Your task to perform on an android device: Open maps Image 0: 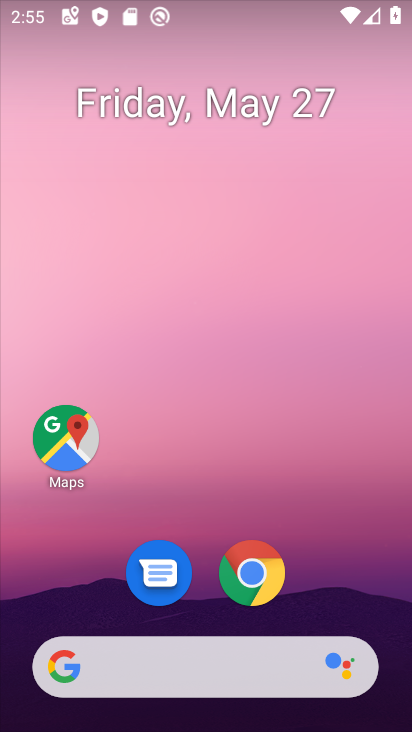
Step 0: click (65, 428)
Your task to perform on an android device: Open maps Image 1: 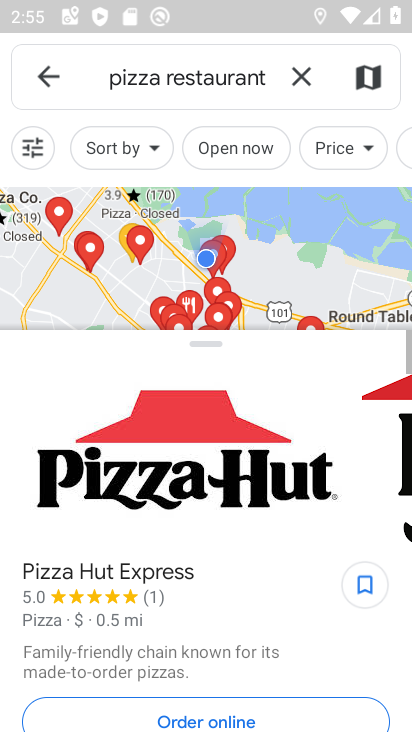
Step 1: click (296, 67)
Your task to perform on an android device: Open maps Image 2: 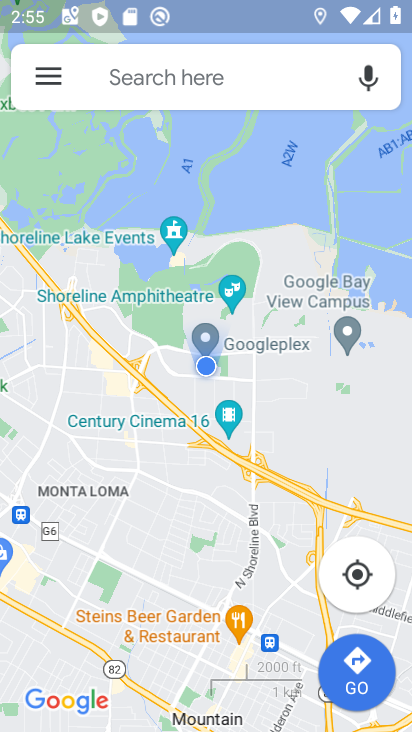
Step 2: task complete